Your task to perform on an android device: see tabs open on other devices in the chrome app Image 0: 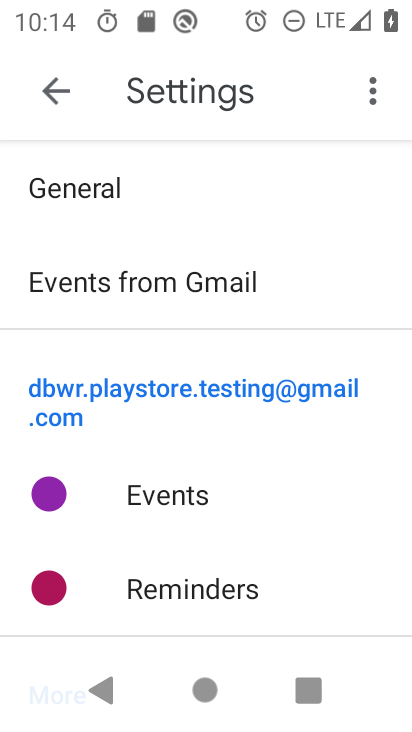
Step 0: press home button
Your task to perform on an android device: see tabs open on other devices in the chrome app Image 1: 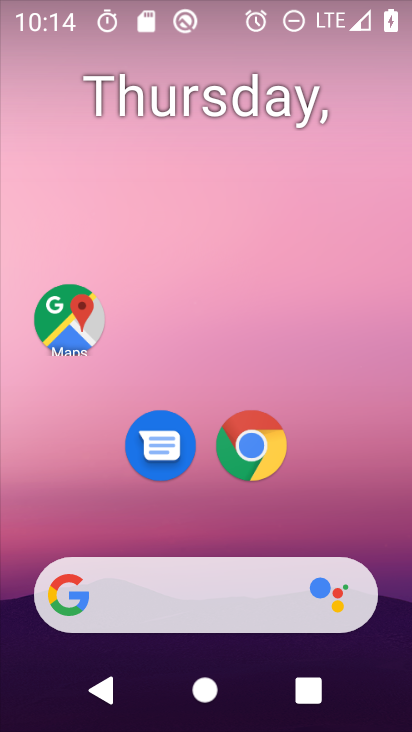
Step 1: drag from (220, 533) to (193, 140)
Your task to perform on an android device: see tabs open on other devices in the chrome app Image 2: 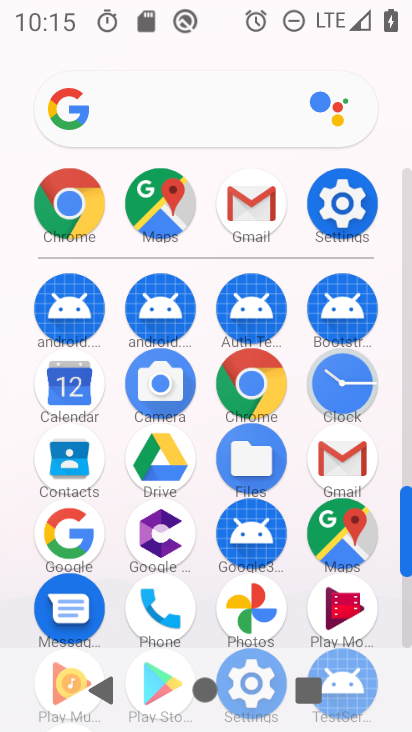
Step 2: click (244, 386)
Your task to perform on an android device: see tabs open on other devices in the chrome app Image 3: 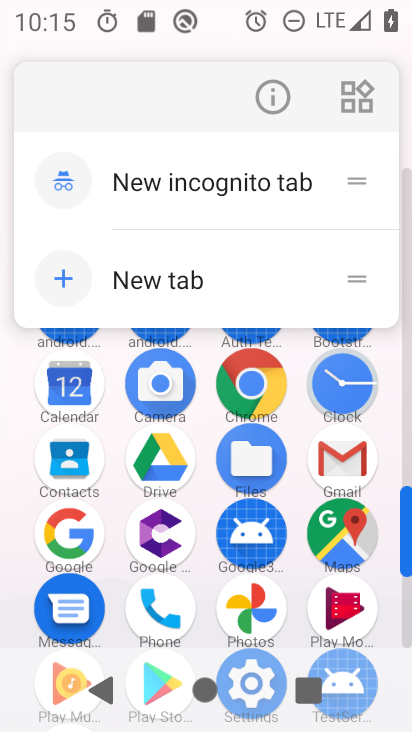
Step 3: click (273, 102)
Your task to perform on an android device: see tabs open on other devices in the chrome app Image 4: 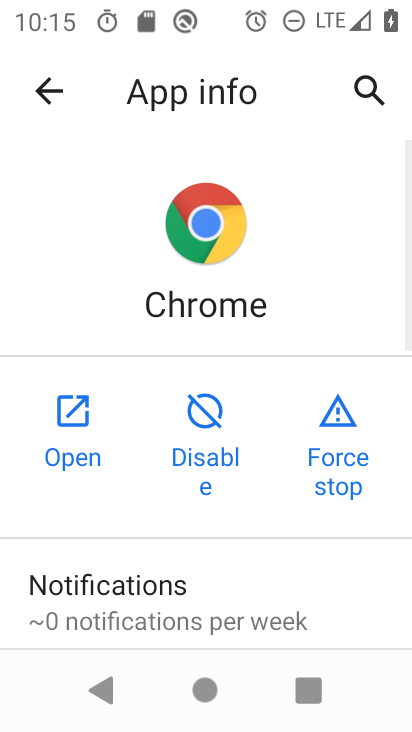
Step 4: click (91, 434)
Your task to perform on an android device: see tabs open on other devices in the chrome app Image 5: 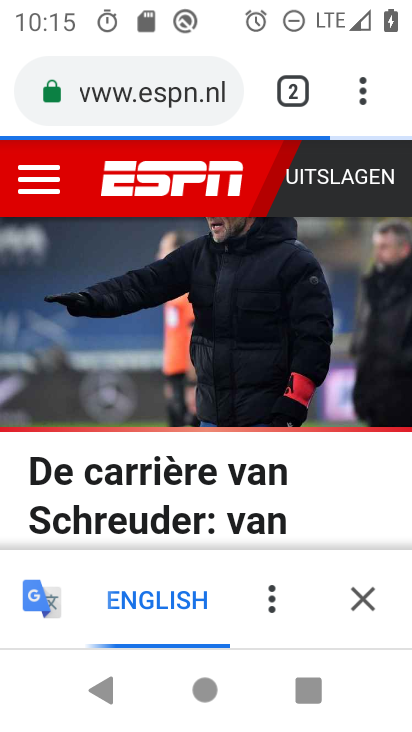
Step 5: drag from (230, 478) to (277, 173)
Your task to perform on an android device: see tabs open on other devices in the chrome app Image 6: 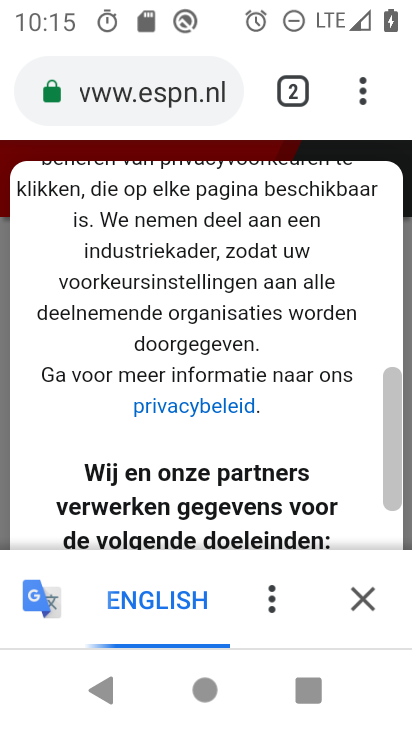
Step 6: drag from (246, 467) to (302, 223)
Your task to perform on an android device: see tabs open on other devices in the chrome app Image 7: 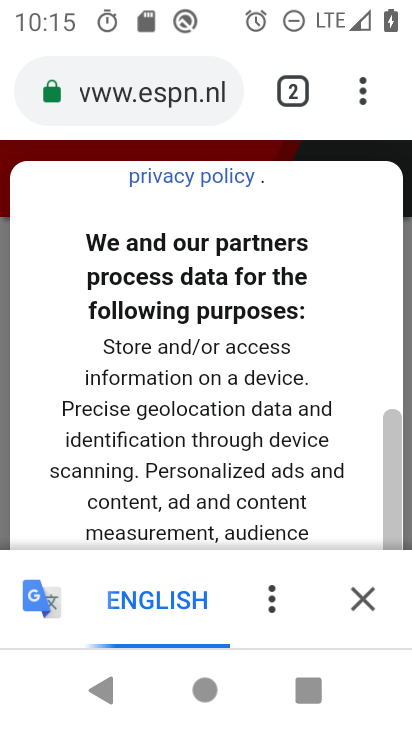
Step 7: press home button
Your task to perform on an android device: see tabs open on other devices in the chrome app Image 8: 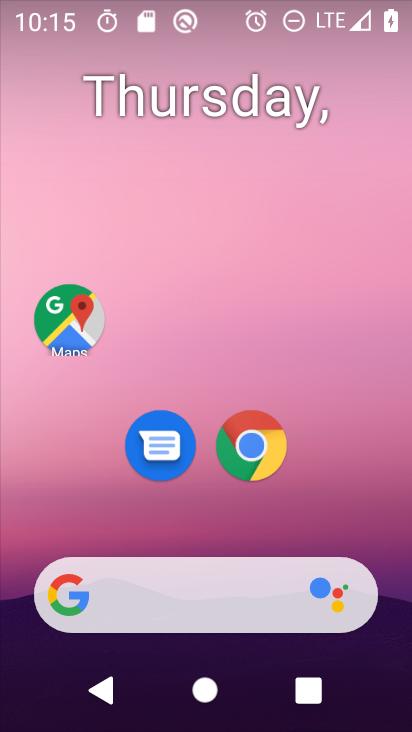
Step 8: click (246, 425)
Your task to perform on an android device: see tabs open on other devices in the chrome app Image 9: 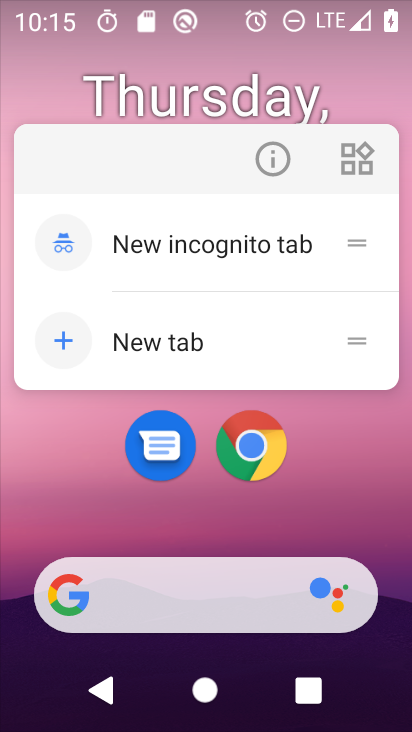
Step 9: click (272, 153)
Your task to perform on an android device: see tabs open on other devices in the chrome app Image 10: 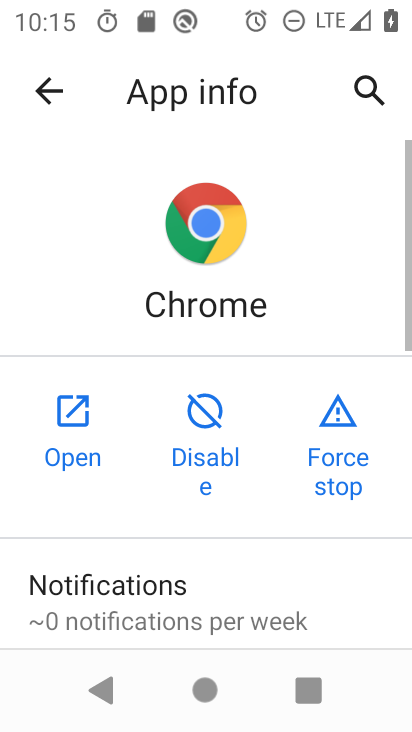
Step 10: click (73, 418)
Your task to perform on an android device: see tabs open on other devices in the chrome app Image 11: 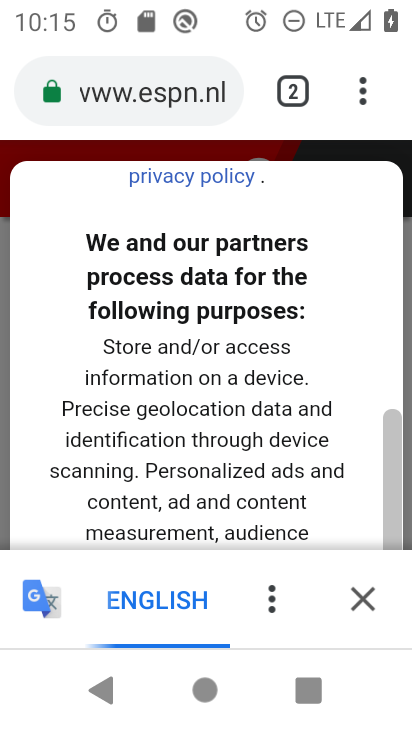
Step 11: task complete